Your task to perform on an android device: Play the latest video from the New York Times Image 0: 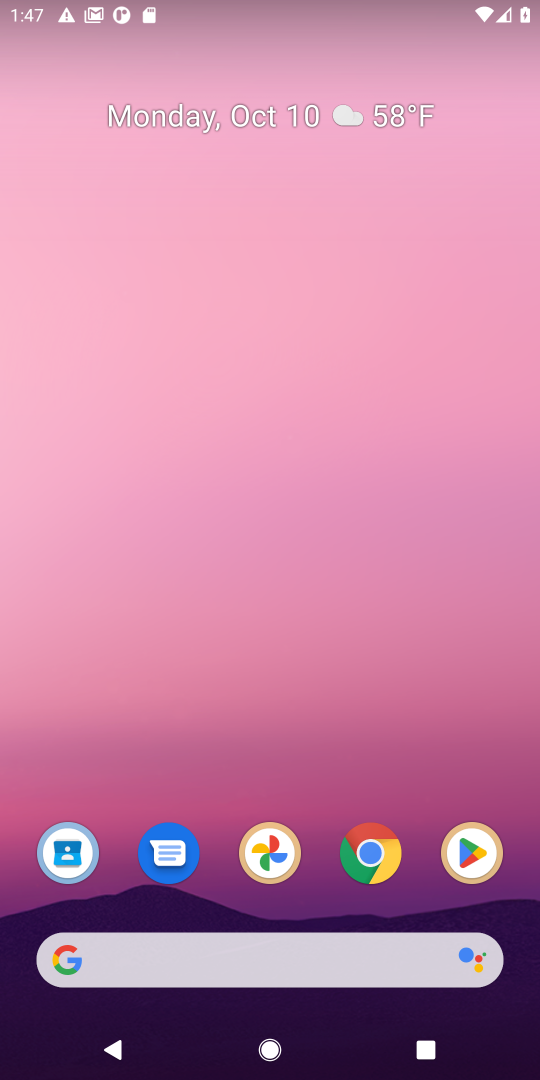
Step 0: click (391, 865)
Your task to perform on an android device: Play the latest video from the New York Times Image 1: 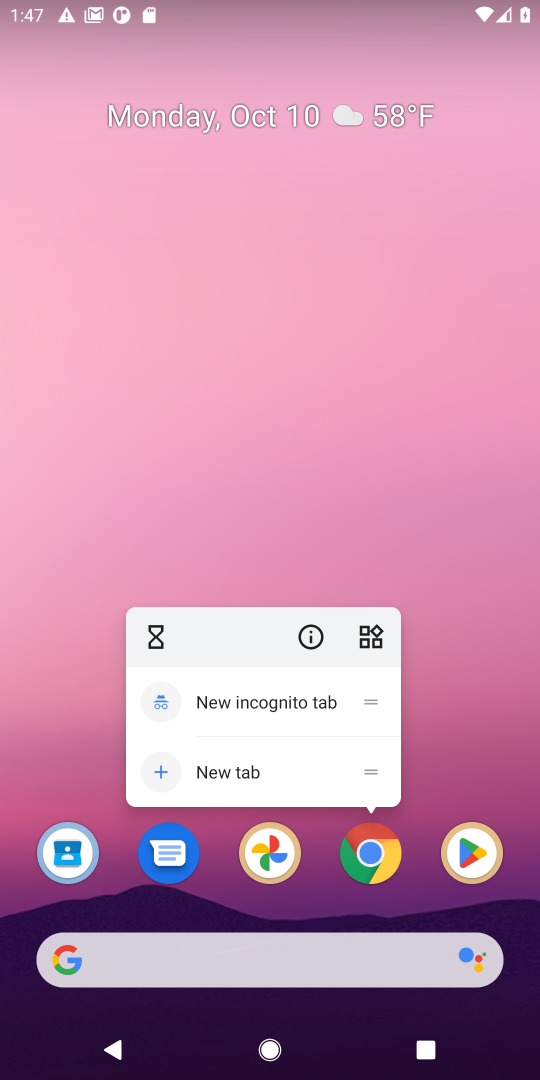
Step 1: click (379, 868)
Your task to perform on an android device: Play the latest video from the New York Times Image 2: 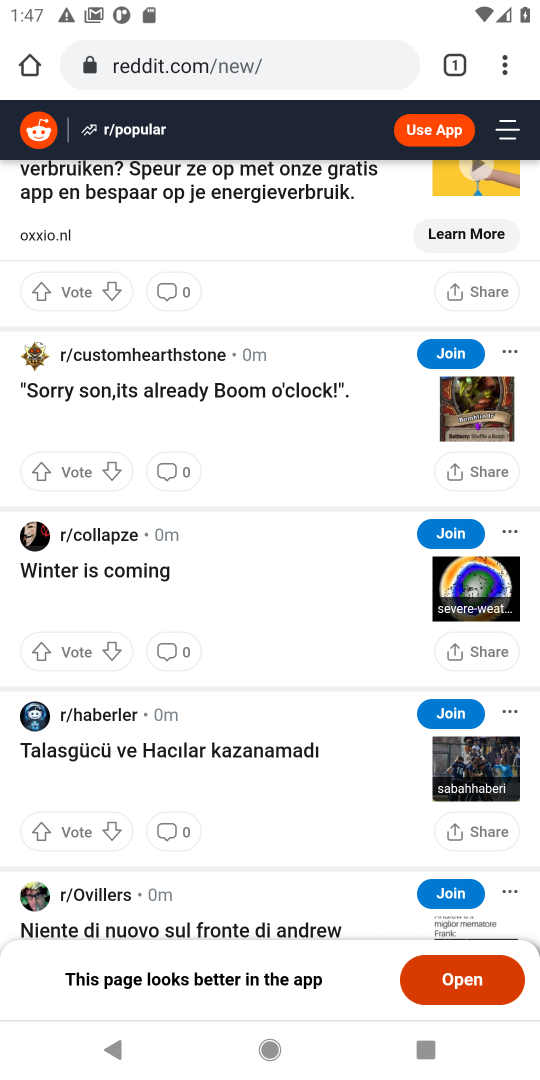
Step 2: click (294, 55)
Your task to perform on an android device: Play the latest video from the New York Times Image 3: 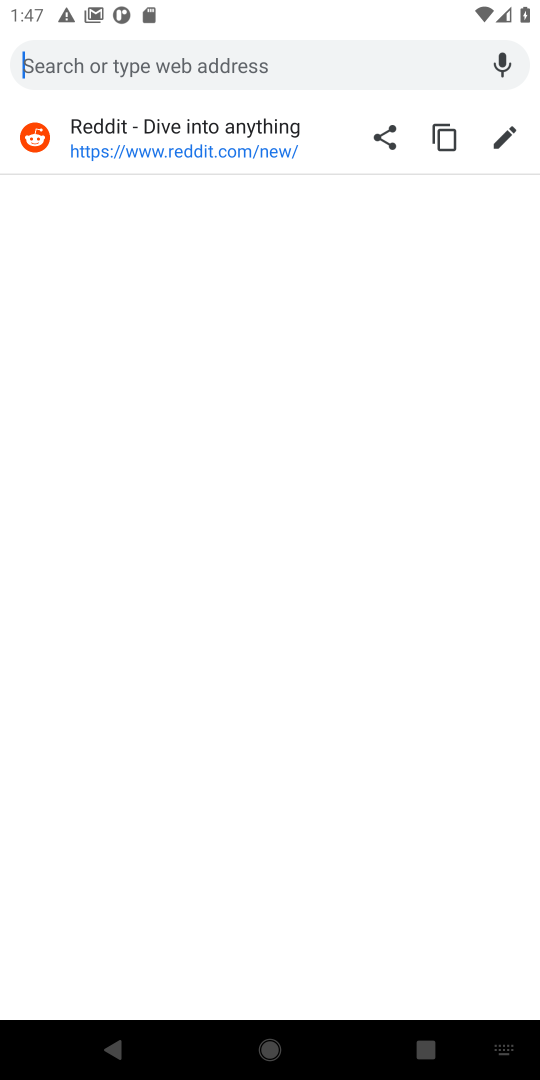
Step 3: type "latest video from the New York Times"
Your task to perform on an android device: Play the latest video from the New York Times Image 4: 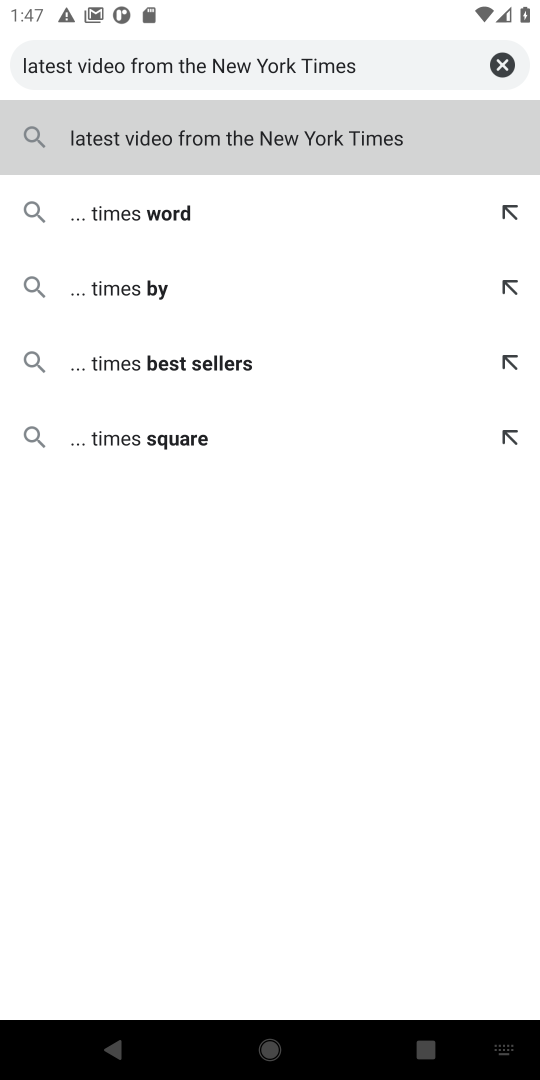
Step 4: click (252, 135)
Your task to perform on an android device: Play the latest video from the New York Times Image 5: 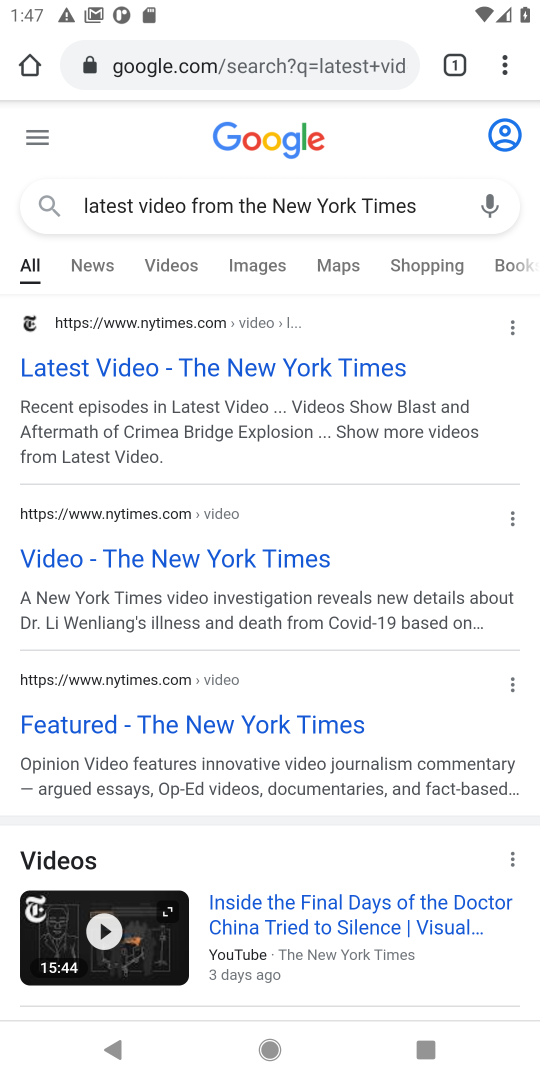
Step 5: click (181, 264)
Your task to perform on an android device: Play the latest video from the New York Times Image 6: 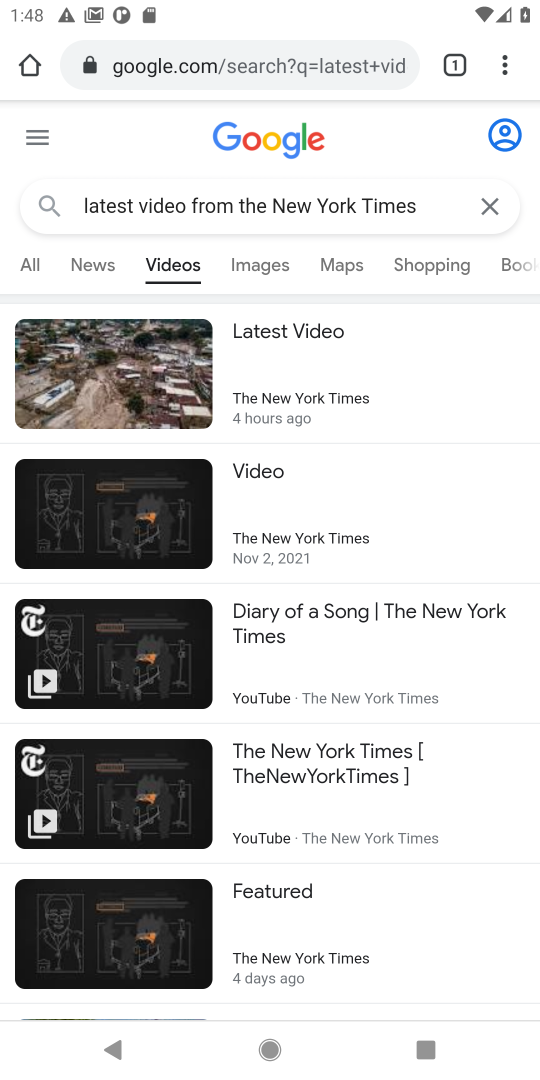
Step 6: click (137, 358)
Your task to perform on an android device: Play the latest video from the New York Times Image 7: 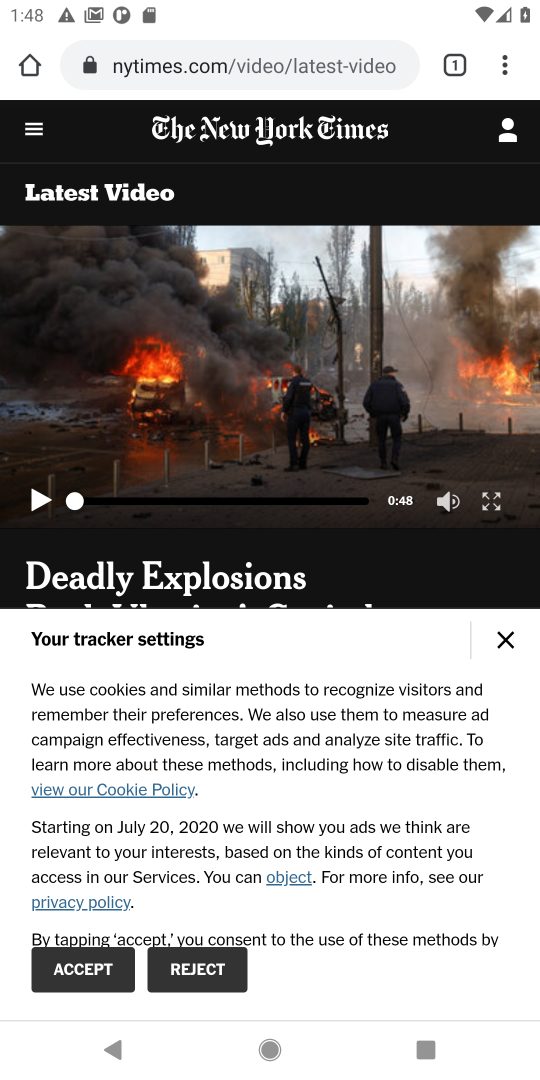
Step 7: click (508, 639)
Your task to perform on an android device: Play the latest video from the New York Times Image 8: 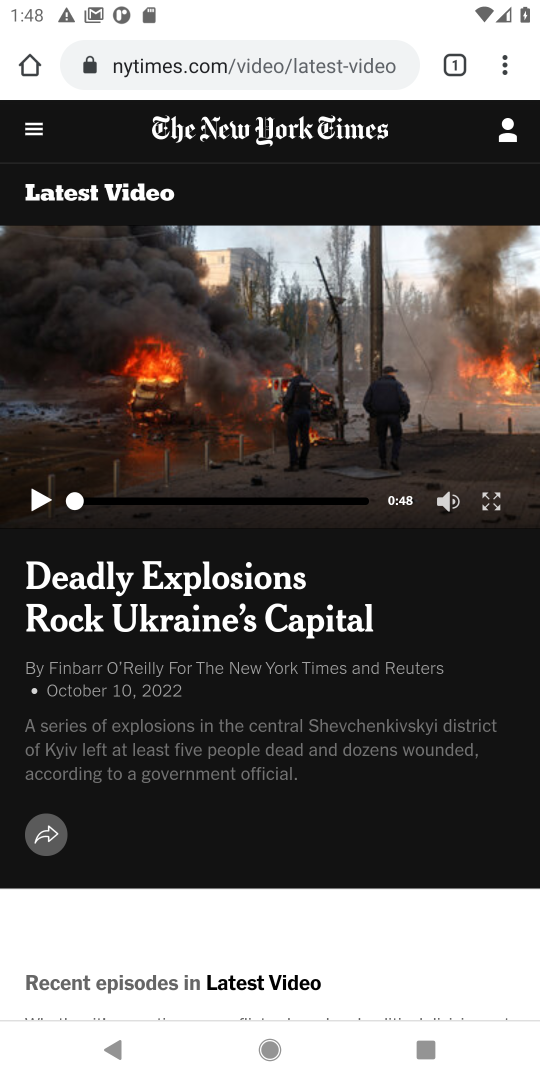
Step 8: click (38, 502)
Your task to perform on an android device: Play the latest video from the New York Times Image 9: 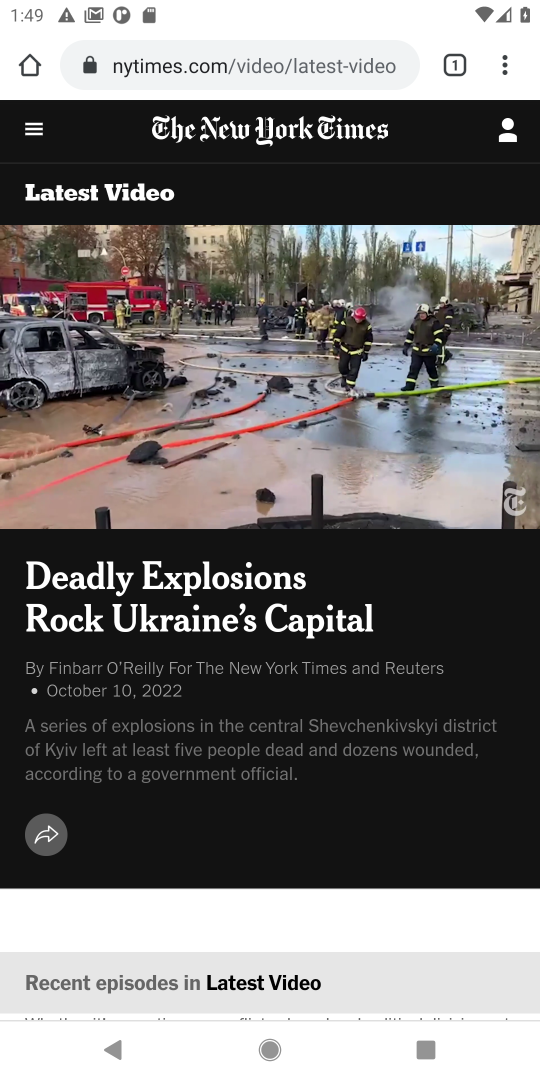
Step 9: task complete